Your task to perform on an android device: Check the latest toasters on Target. Image 0: 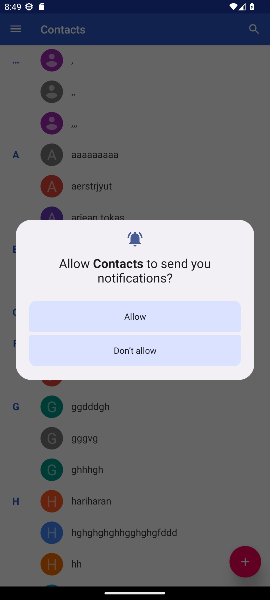
Step 0: click (137, 315)
Your task to perform on an android device: Check the latest toasters on Target. Image 1: 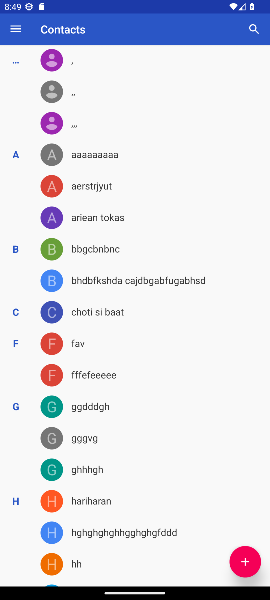
Step 1: press home button
Your task to perform on an android device: Check the latest toasters on Target. Image 2: 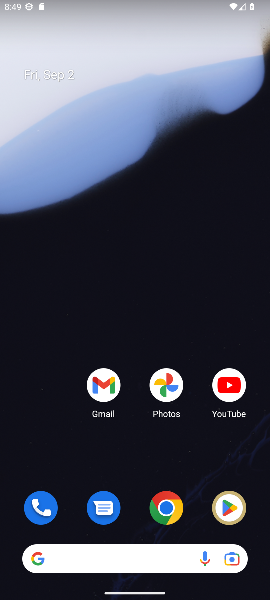
Step 2: click (170, 512)
Your task to perform on an android device: Check the latest toasters on Target. Image 3: 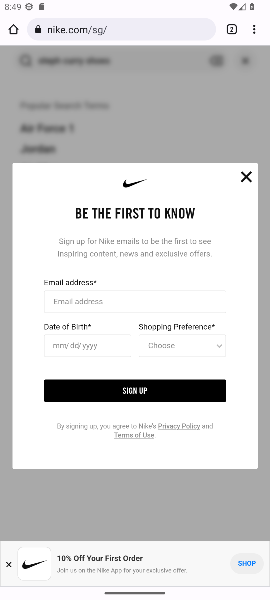
Step 3: click (138, 27)
Your task to perform on an android device: Check the latest toasters on Target. Image 4: 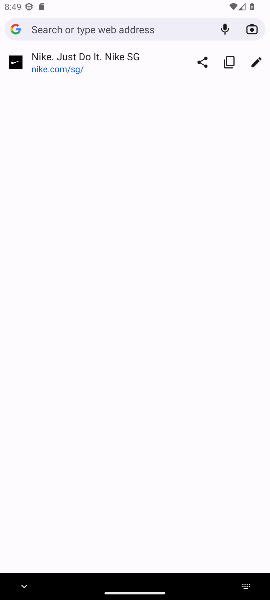
Step 4: type "target"
Your task to perform on an android device: Check the latest toasters on Target. Image 5: 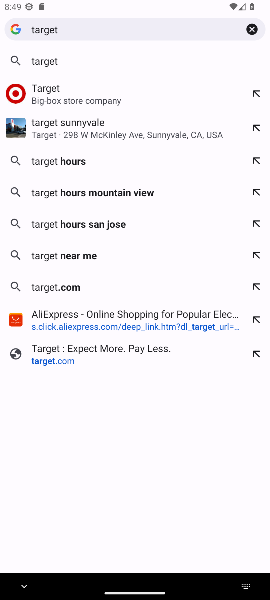
Step 5: click (43, 80)
Your task to perform on an android device: Check the latest toasters on Target. Image 6: 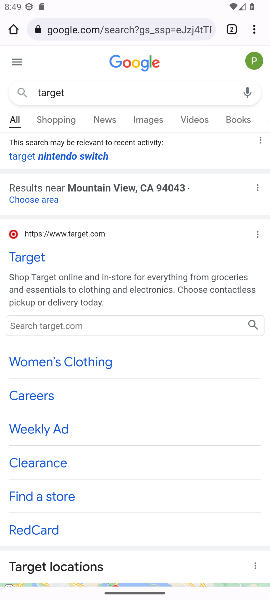
Step 6: click (21, 257)
Your task to perform on an android device: Check the latest toasters on Target. Image 7: 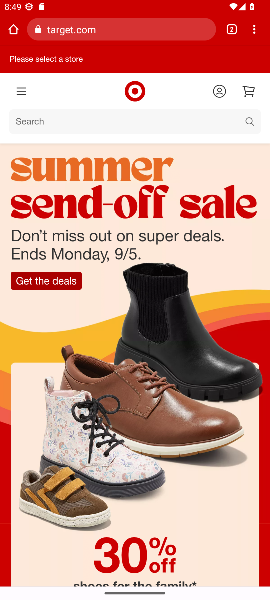
Step 7: click (248, 115)
Your task to perform on an android device: Check the latest toasters on Target. Image 8: 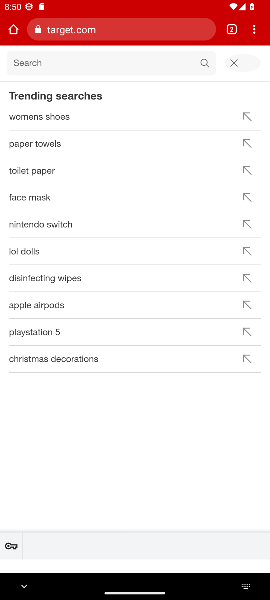
Step 8: type "latest toasters "
Your task to perform on an android device: Check the latest toasters on Target. Image 9: 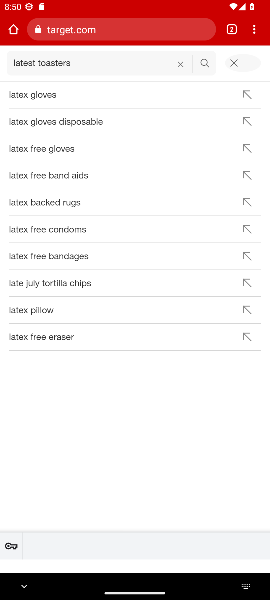
Step 9: click (35, 59)
Your task to perform on an android device: Check the latest toasters on Target. Image 10: 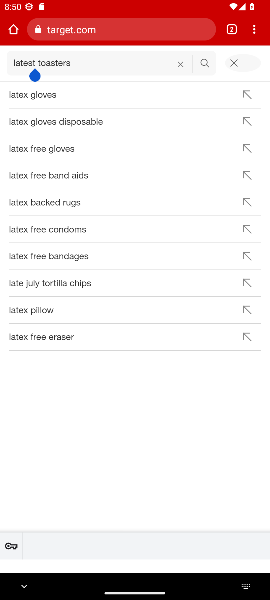
Step 10: click (52, 67)
Your task to perform on an android device: Check the latest toasters on Target. Image 11: 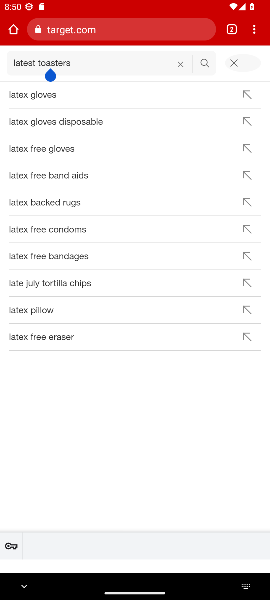
Step 11: click (89, 63)
Your task to perform on an android device: Check the latest toasters on Target. Image 12: 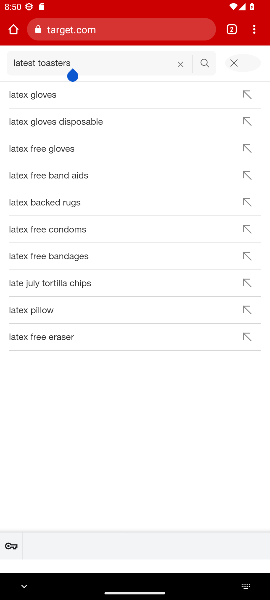
Step 12: click (204, 61)
Your task to perform on an android device: Check the latest toasters on Target. Image 13: 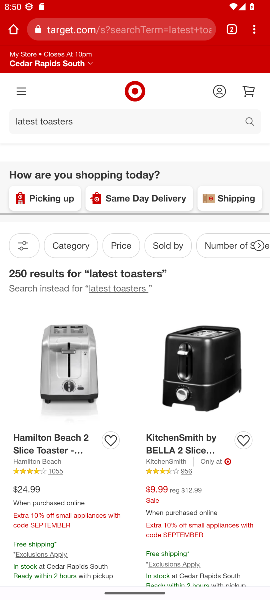
Step 13: task complete